Your task to perform on an android device: Open the phone app and click the voicemail tab. Image 0: 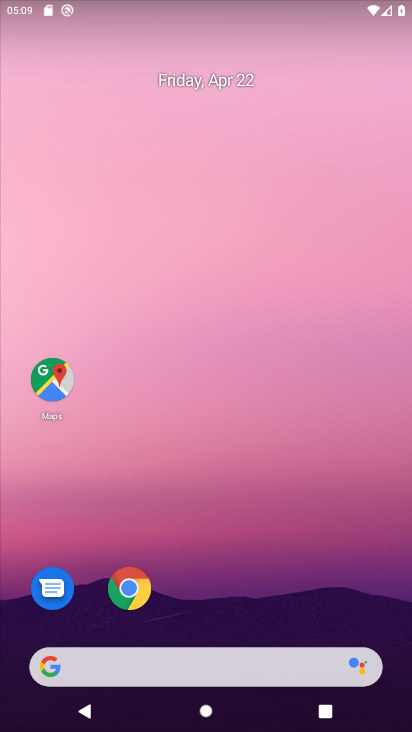
Step 0: drag from (296, 528) to (338, 52)
Your task to perform on an android device: Open the phone app and click the voicemail tab. Image 1: 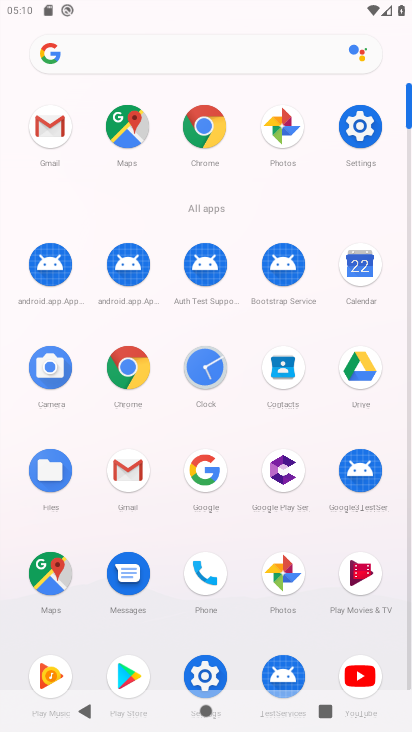
Step 1: click (194, 567)
Your task to perform on an android device: Open the phone app and click the voicemail tab. Image 2: 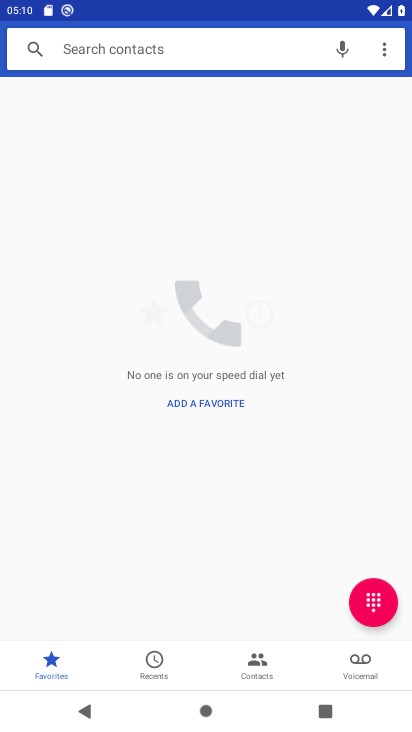
Step 2: click (354, 659)
Your task to perform on an android device: Open the phone app and click the voicemail tab. Image 3: 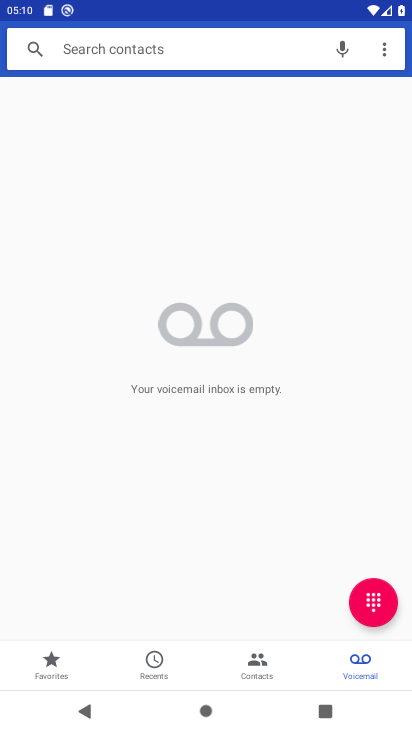
Step 3: task complete